Your task to perform on an android device: toggle data saver in the chrome app Image 0: 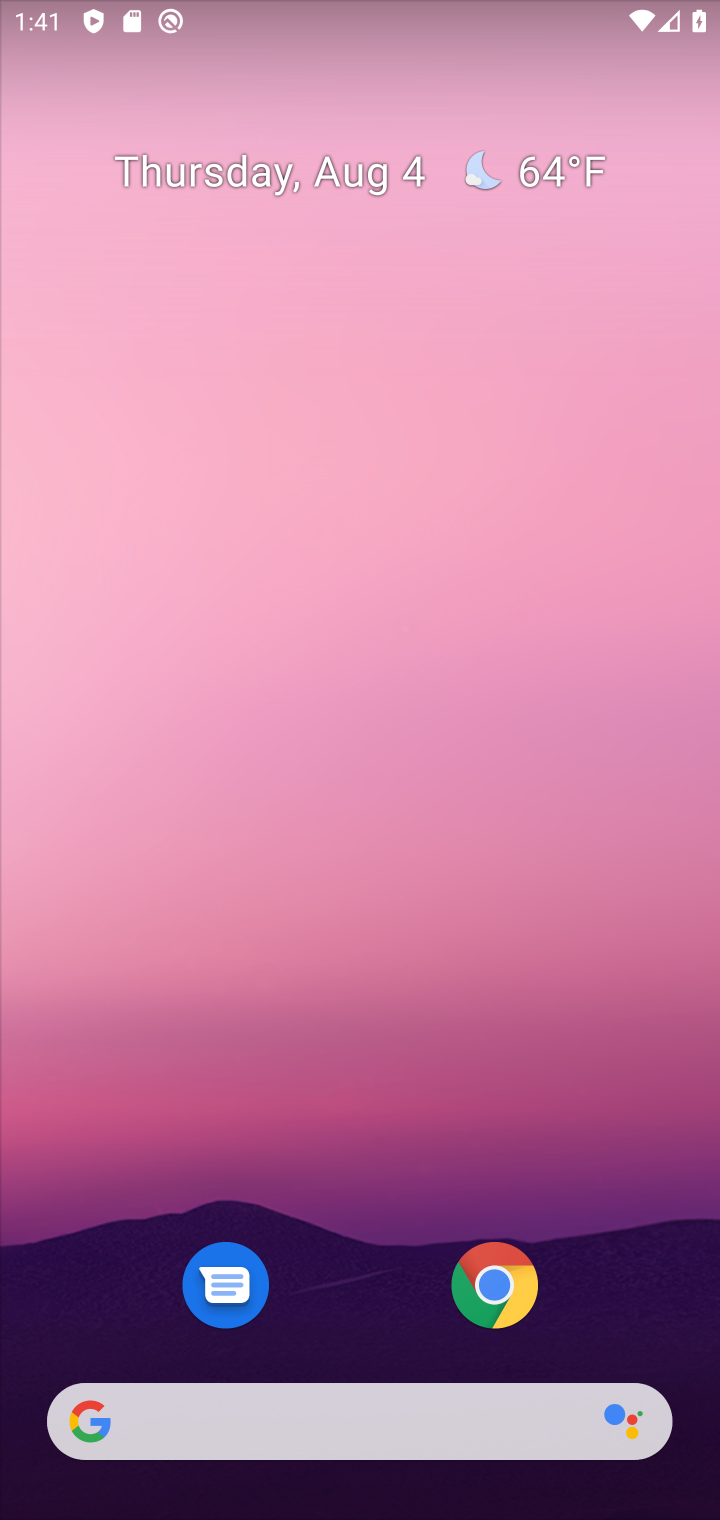
Step 0: click (494, 1294)
Your task to perform on an android device: toggle data saver in the chrome app Image 1: 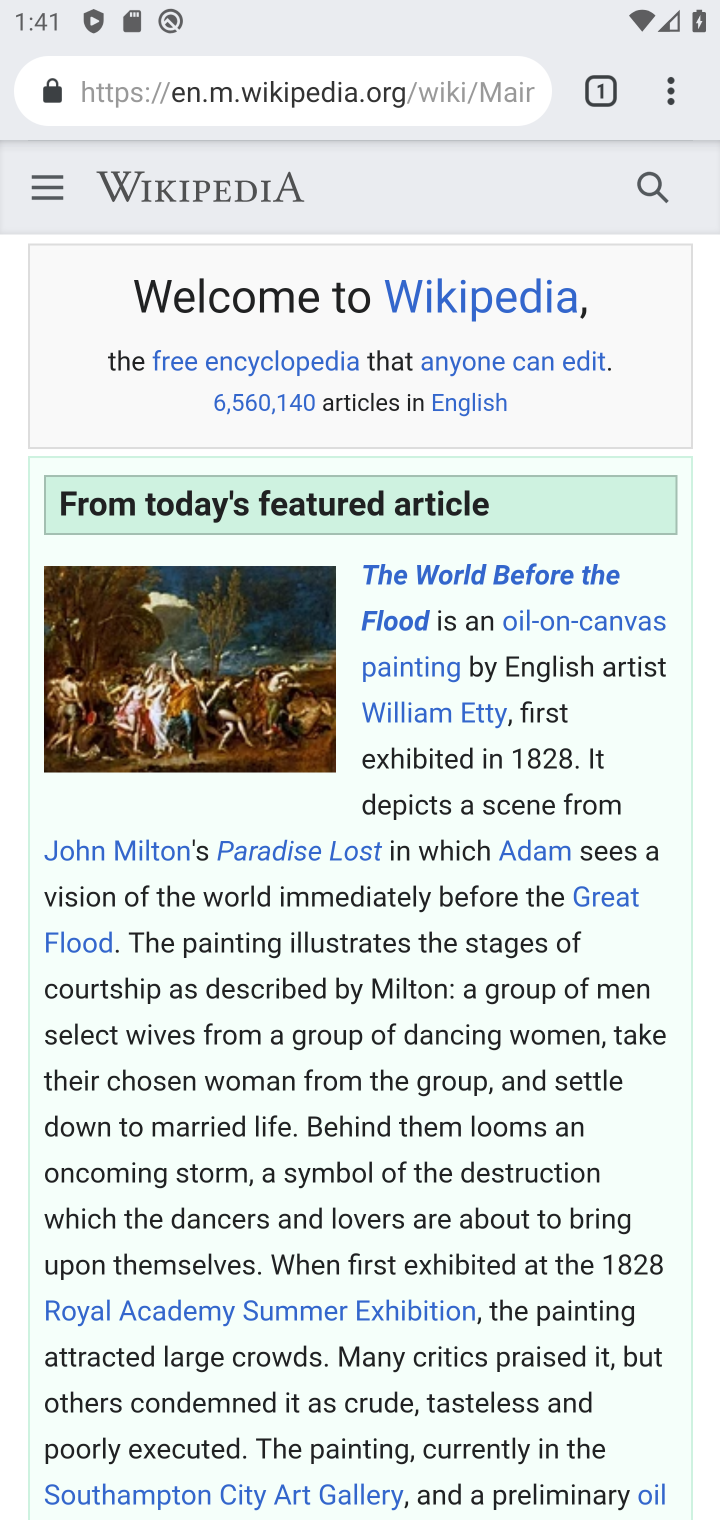
Step 1: click (653, 101)
Your task to perform on an android device: toggle data saver in the chrome app Image 2: 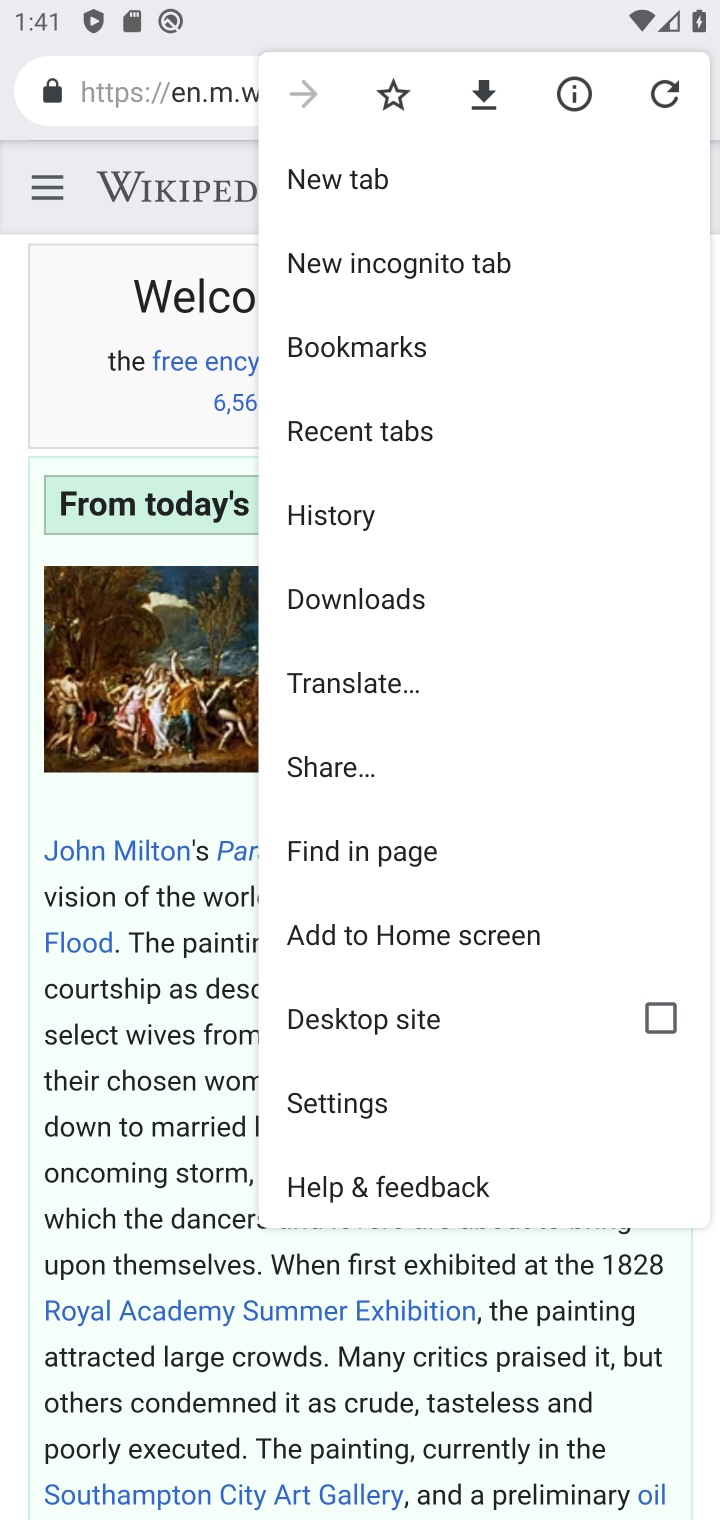
Step 2: click (341, 1094)
Your task to perform on an android device: toggle data saver in the chrome app Image 3: 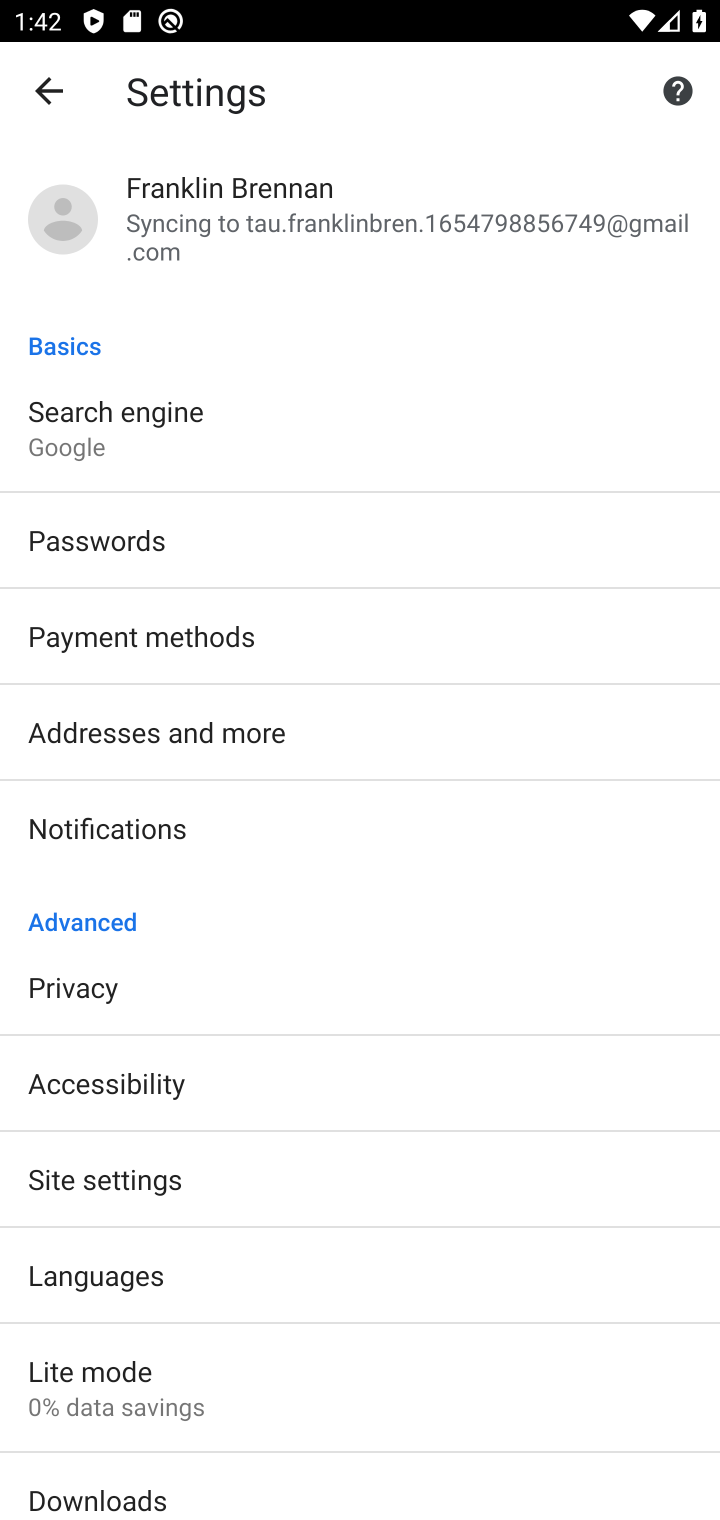
Step 3: click (78, 1389)
Your task to perform on an android device: toggle data saver in the chrome app Image 4: 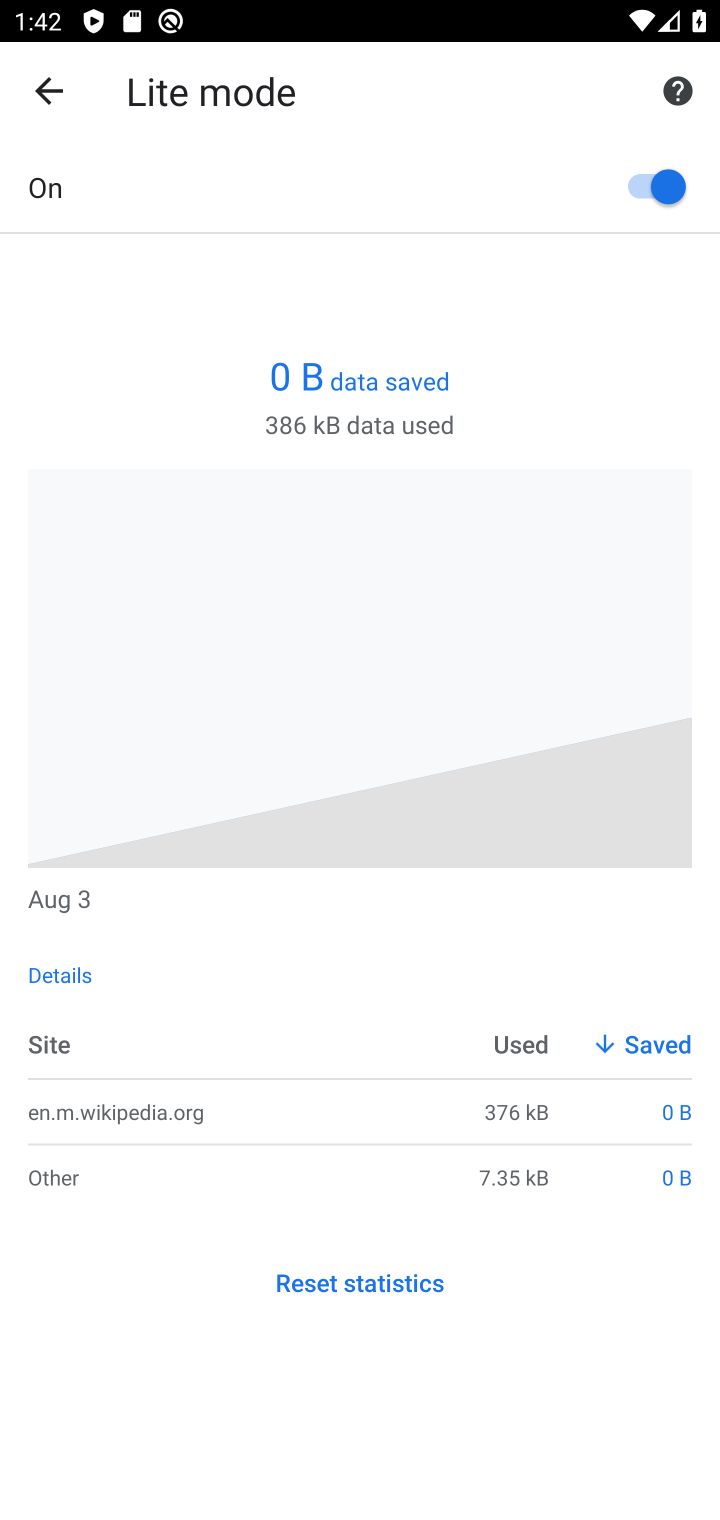
Step 4: click (627, 188)
Your task to perform on an android device: toggle data saver in the chrome app Image 5: 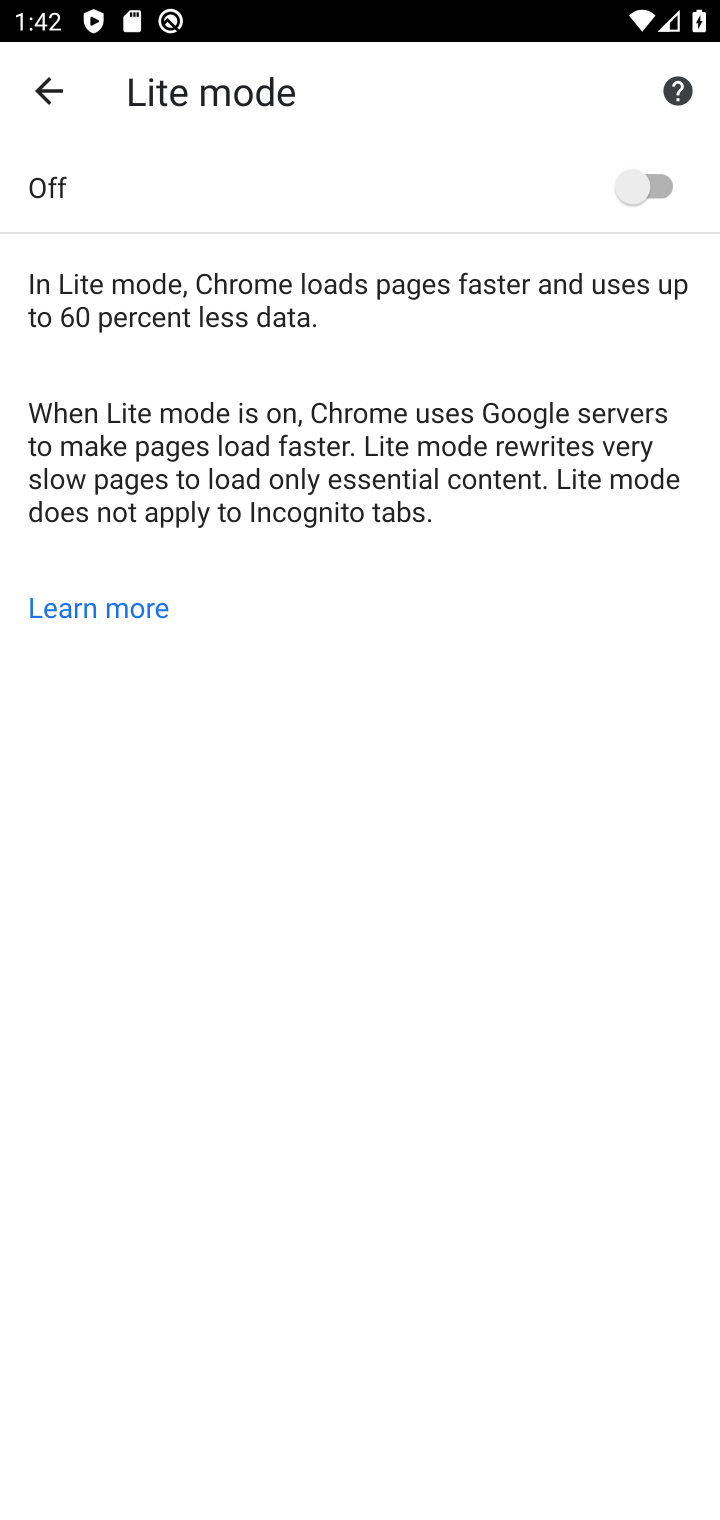
Step 5: task complete